Your task to perform on an android device: create a new album in the google photos Image 0: 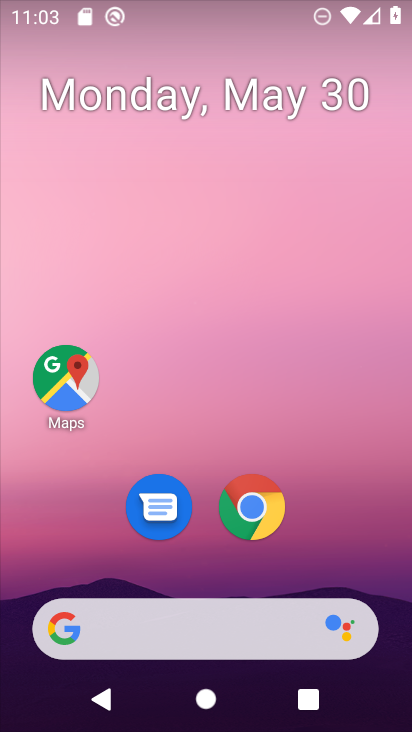
Step 0: drag from (390, 634) to (306, 45)
Your task to perform on an android device: create a new album in the google photos Image 1: 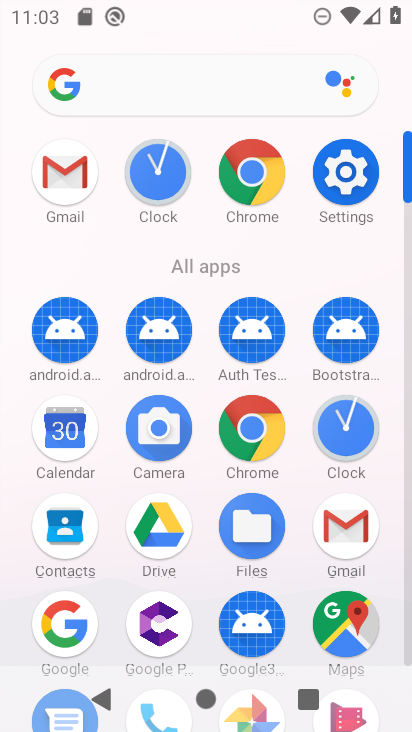
Step 1: drag from (198, 665) to (205, 137)
Your task to perform on an android device: create a new album in the google photos Image 2: 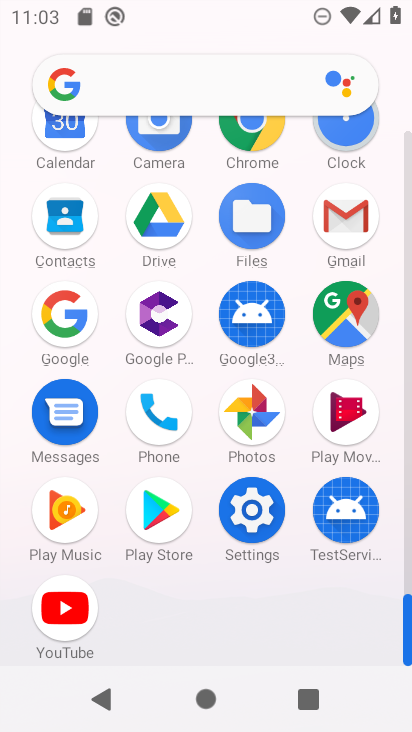
Step 2: click (260, 427)
Your task to perform on an android device: create a new album in the google photos Image 3: 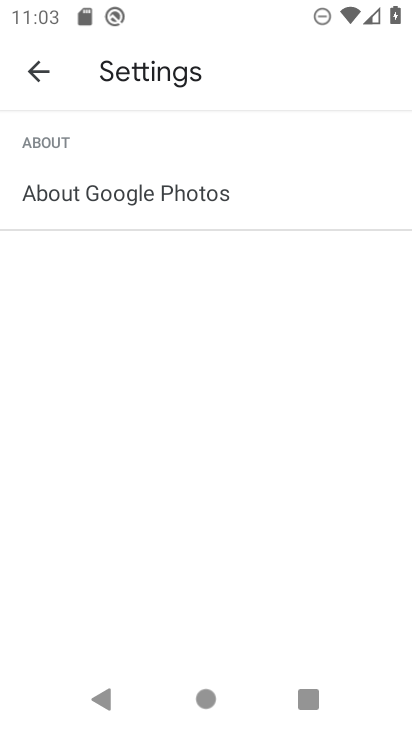
Step 3: press back button
Your task to perform on an android device: create a new album in the google photos Image 4: 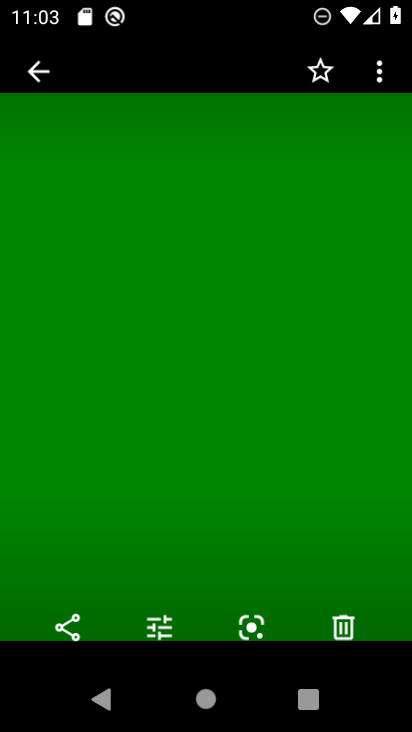
Step 4: press back button
Your task to perform on an android device: create a new album in the google photos Image 5: 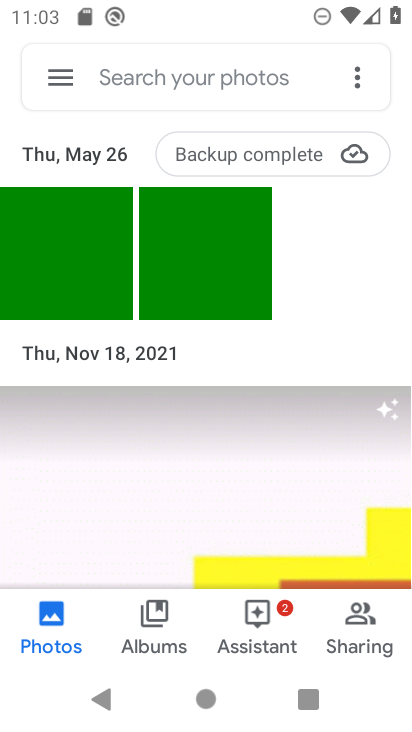
Step 5: click (54, 247)
Your task to perform on an android device: create a new album in the google photos Image 6: 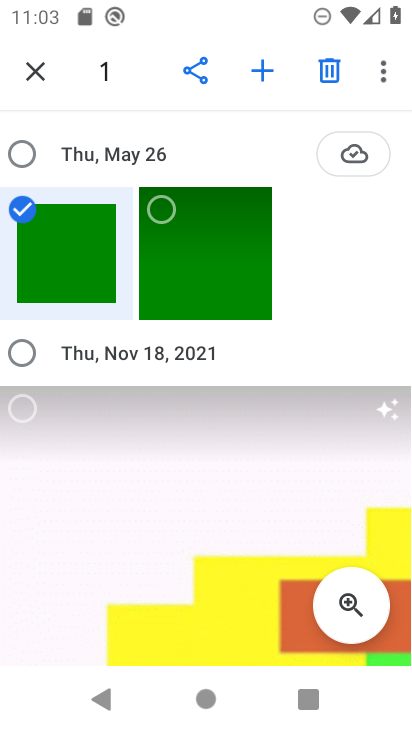
Step 6: click (208, 246)
Your task to perform on an android device: create a new album in the google photos Image 7: 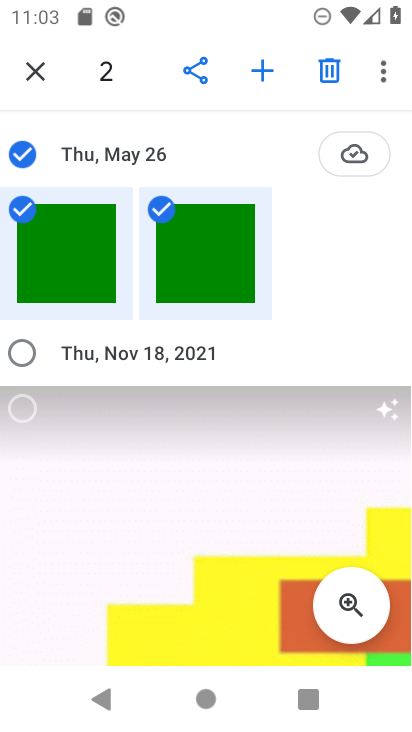
Step 7: click (270, 70)
Your task to perform on an android device: create a new album in the google photos Image 8: 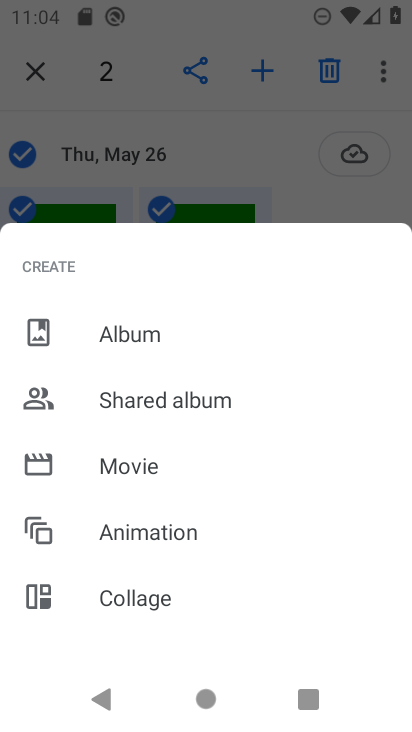
Step 8: click (149, 344)
Your task to perform on an android device: create a new album in the google photos Image 9: 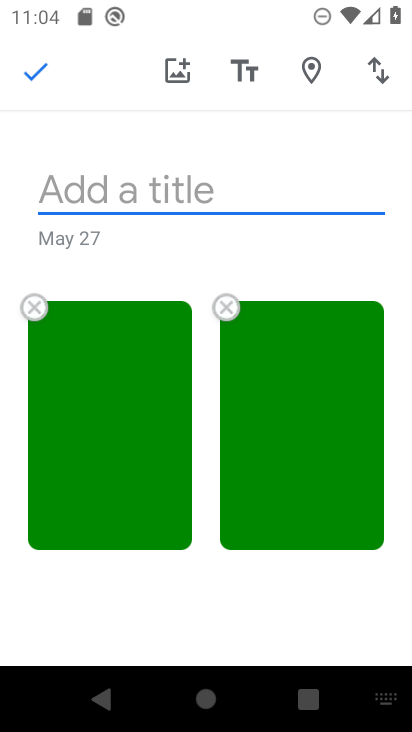
Step 9: type "hsssss"
Your task to perform on an android device: create a new album in the google photos Image 10: 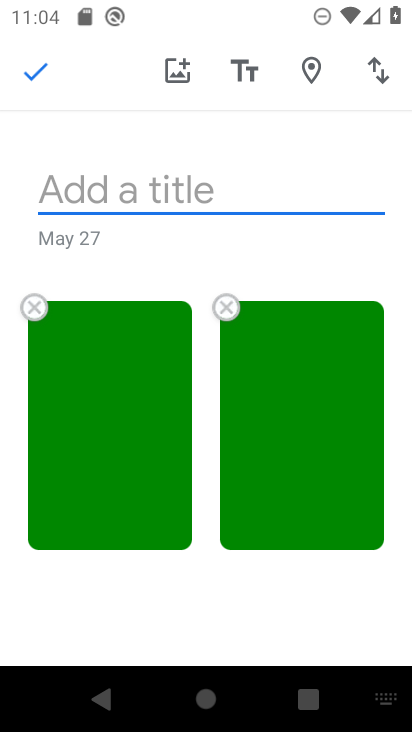
Step 10: click (49, 73)
Your task to perform on an android device: create a new album in the google photos Image 11: 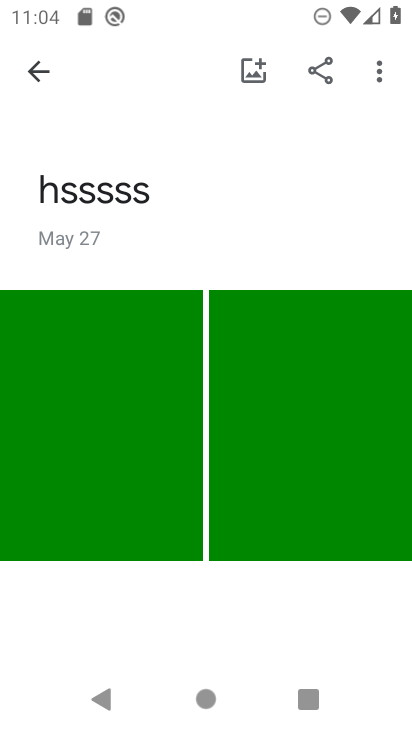
Step 11: task complete